Your task to perform on an android device: add a contact Image 0: 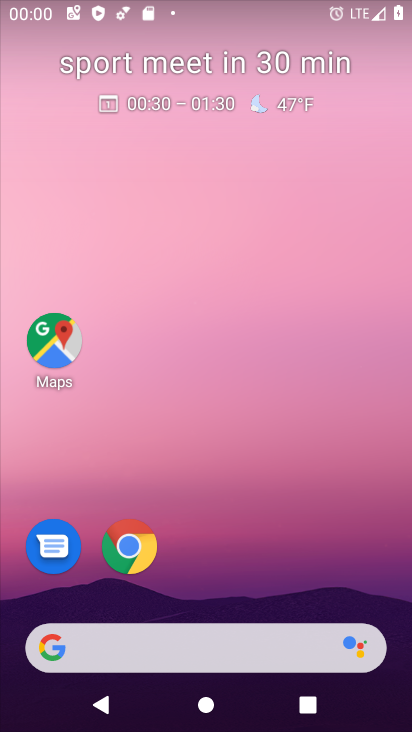
Step 0: drag from (320, 581) to (344, 6)
Your task to perform on an android device: add a contact Image 1: 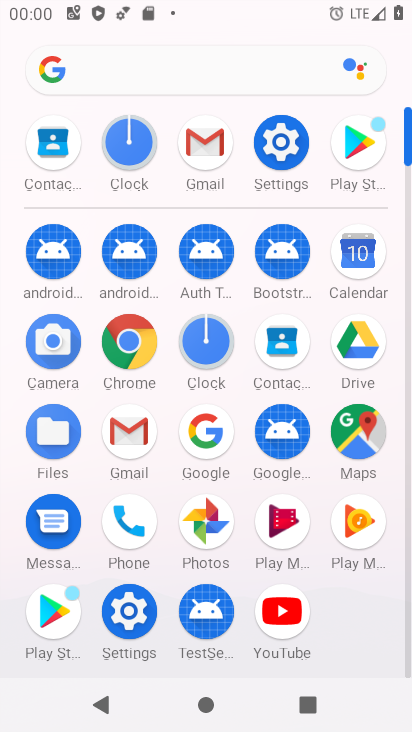
Step 1: click (42, 144)
Your task to perform on an android device: add a contact Image 2: 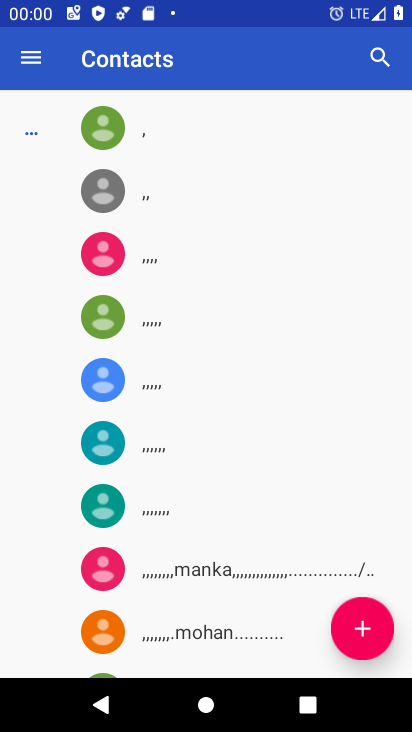
Step 2: click (350, 616)
Your task to perform on an android device: add a contact Image 3: 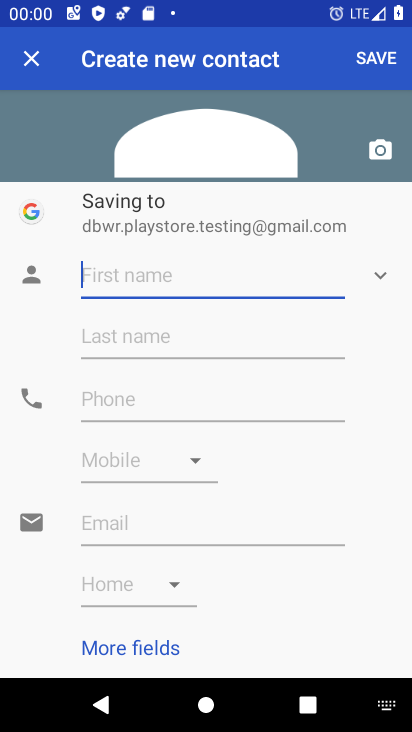
Step 3: type "owl"
Your task to perform on an android device: add a contact Image 4: 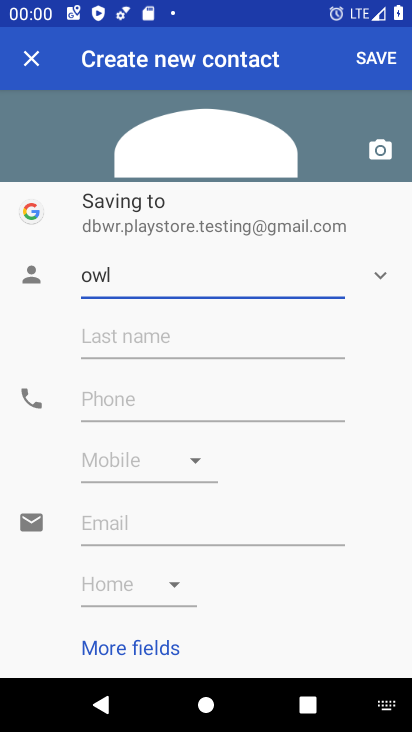
Step 4: click (193, 400)
Your task to perform on an android device: add a contact Image 5: 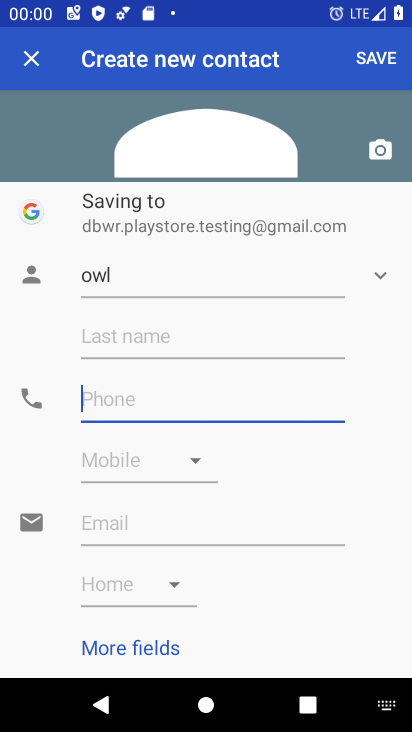
Step 5: type "987765544"
Your task to perform on an android device: add a contact Image 6: 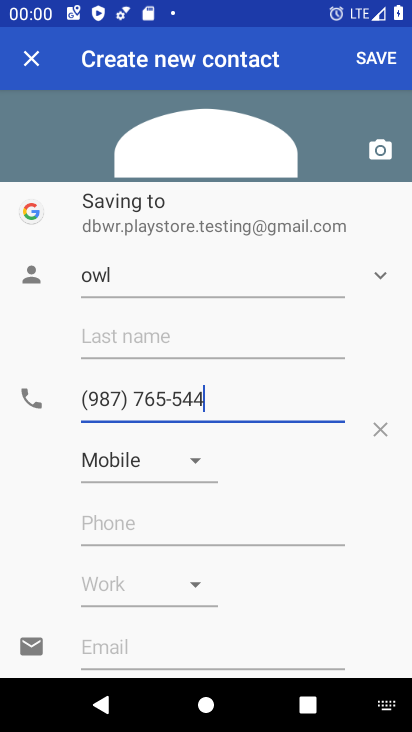
Step 6: click (377, 58)
Your task to perform on an android device: add a contact Image 7: 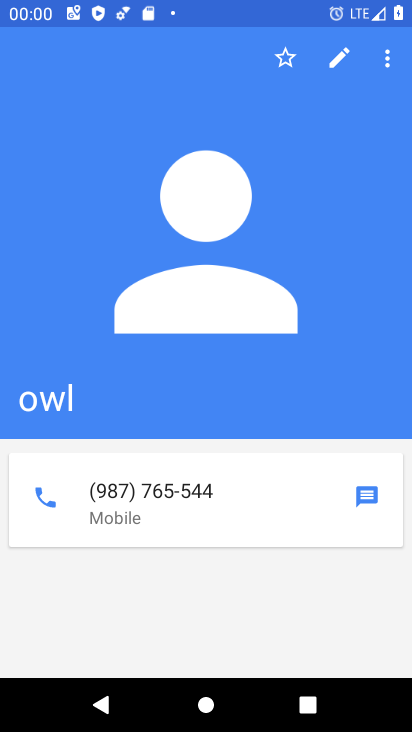
Step 7: task complete